Your task to perform on an android device: Set the phone to "Do not disturb". Image 0: 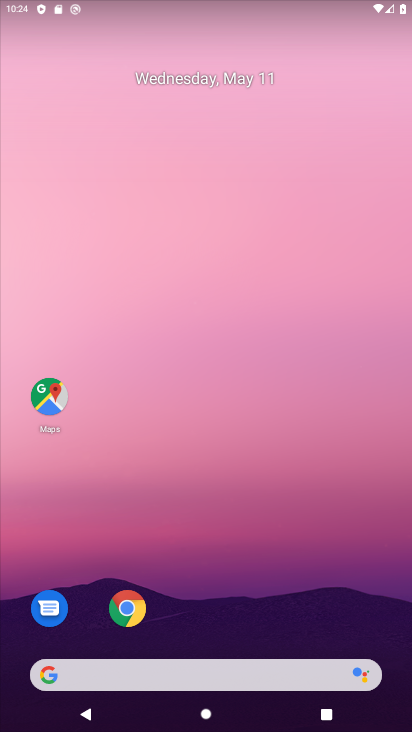
Step 0: drag from (218, 2) to (182, 458)
Your task to perform on an android device: Set the phone to "Do not disturb". Image 1: 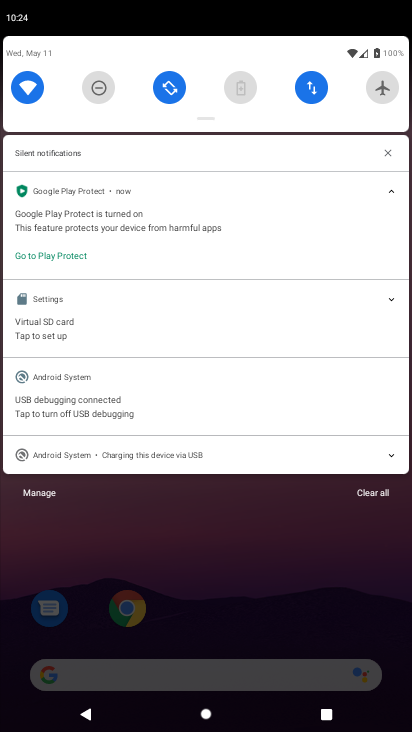
Step 1: click (92, 82)
Your task to perform on an android device: Set the phone to "Do not disturb". Image 2: 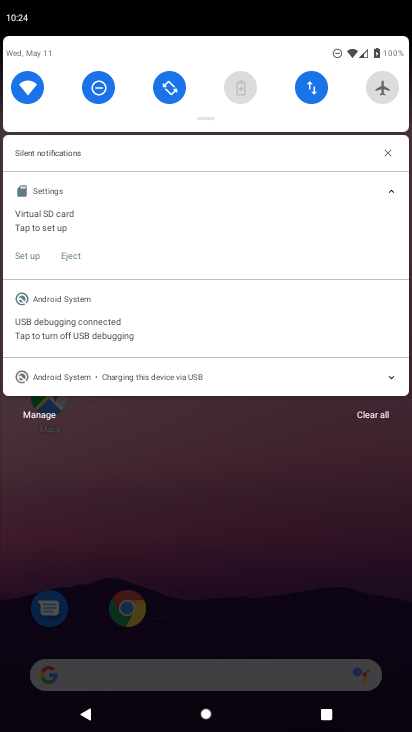
Step 2: task complete